Your task to perform on an android device: make emails show in primary in the gmail app Image 0: 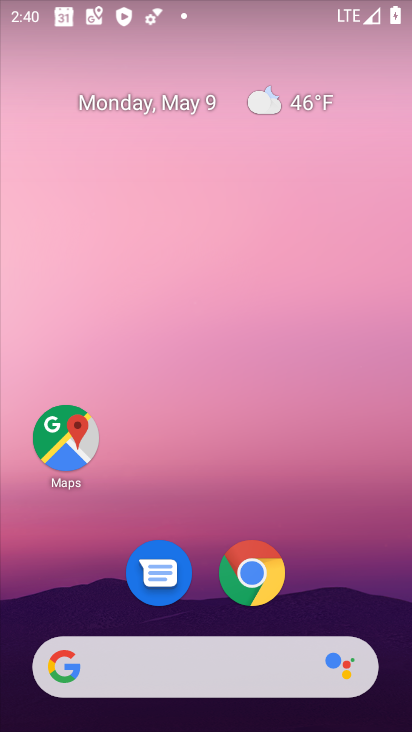
Step 0: drag from (205, 590) to (238, 111)
Your task to perform on an android device: make emails show in primary in the gmail app Image 1: 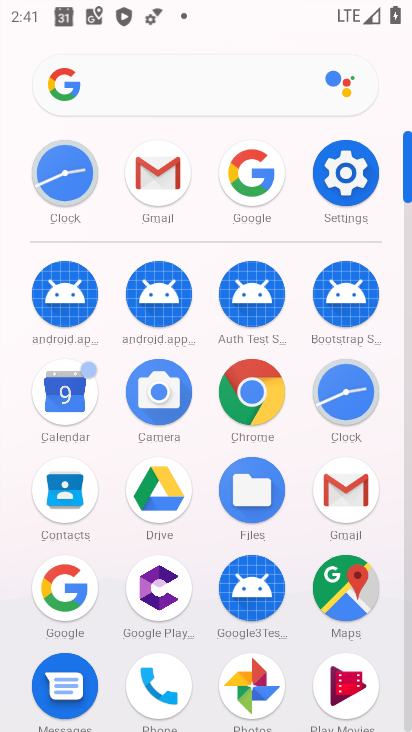
Step 1: click (143, 169)
Your task to perform on an android device: make emails show in primary in the gmail app Image 2: 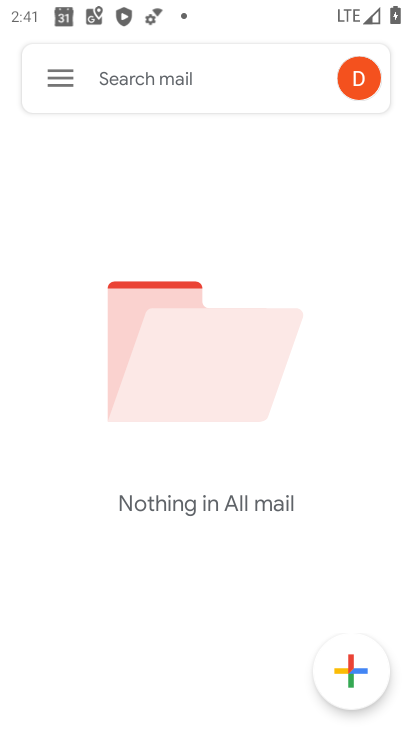
Step 2: click (50, 78)
Your task to perform on an android device: make emails show in primary in the gmail app Image 3: 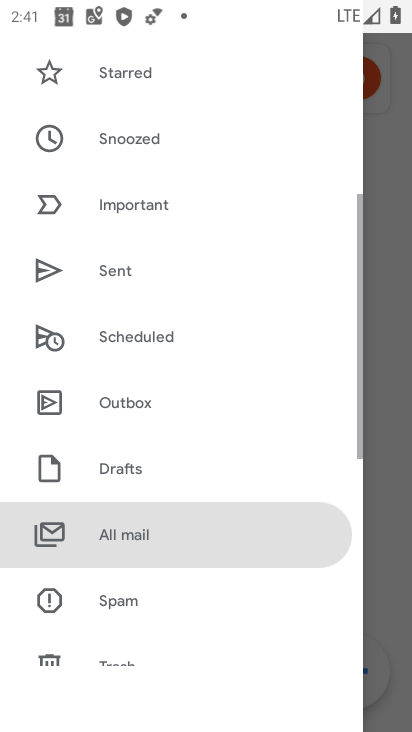
Step 3: drag from (177, 566) to (248, 167)
Your task to perform on an android device: make emails show in primary in the gmail app Image 4: 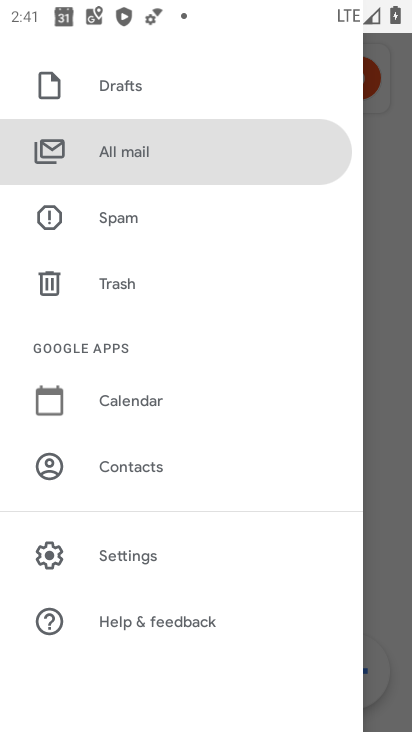
Step 4: click (106, 558)
Your task to perform on an android device: make emails show in primary in the gmail app Image 5: 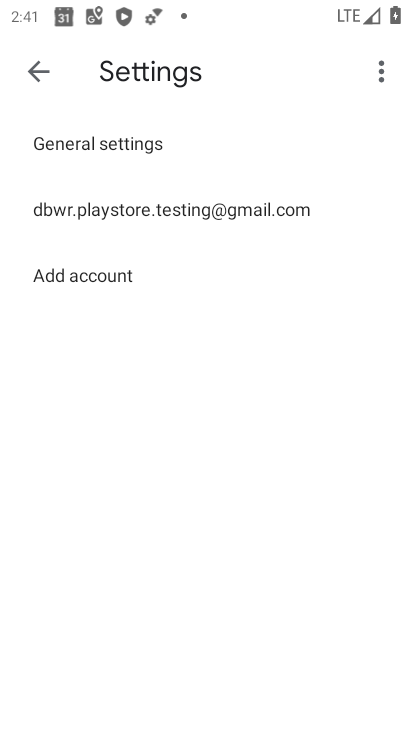
Step 5: click (138, 205)
Your task to perform on an android device: make emails show in primary in the gmail app Image 6: 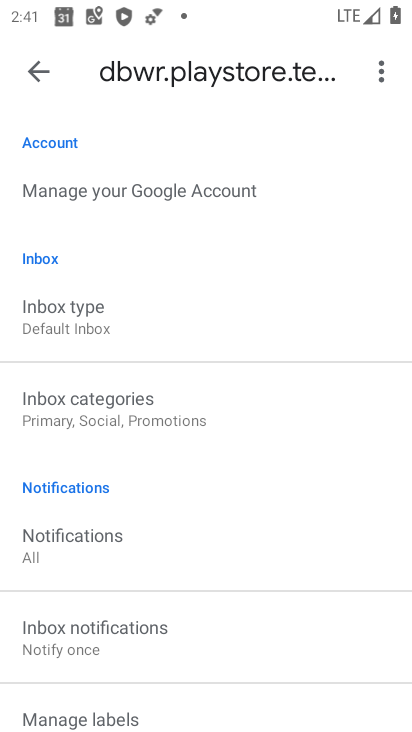
Step 6: click (74, 314)
Your task to perform on an android device: make emails show in primary in the gmail app Image 7: 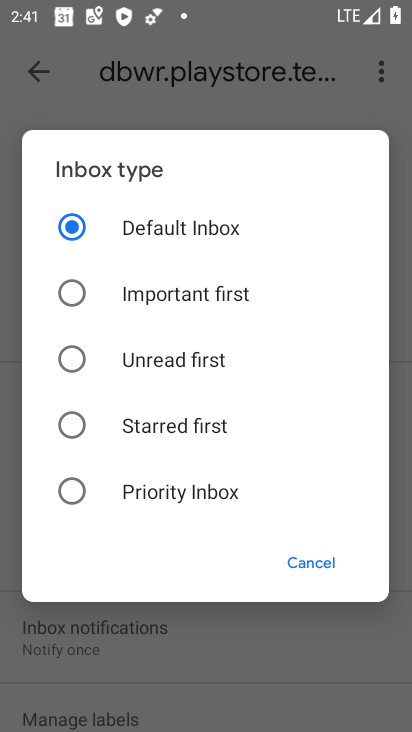
Step 7: click (303, 552)
Your task to perform on an android device: make emails show in primary in the gmail app Image 8: 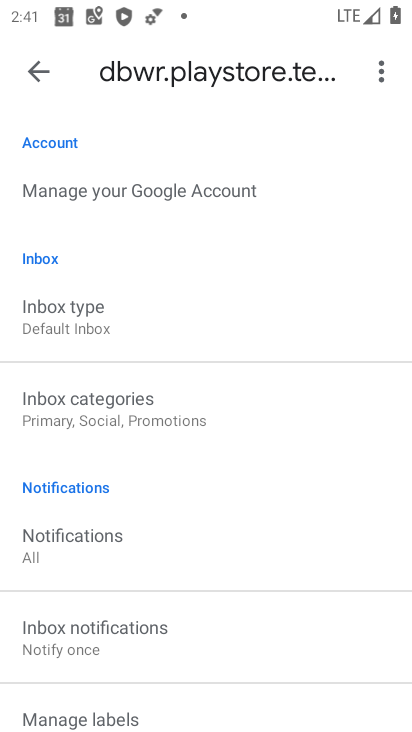
Step 8: click (79, 411)
Your task to perform on an android device: make emails show in primary in the gmail app Image 9: 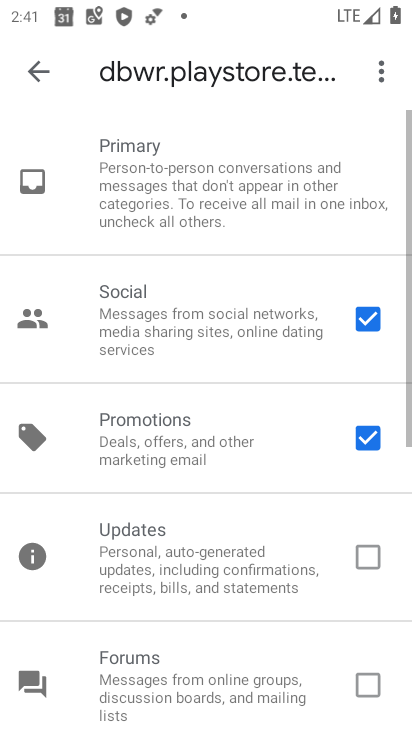
Step 9: click (366, 444)
Your task to perform on an android device: make emails show in primary in the gmail app Image 10: 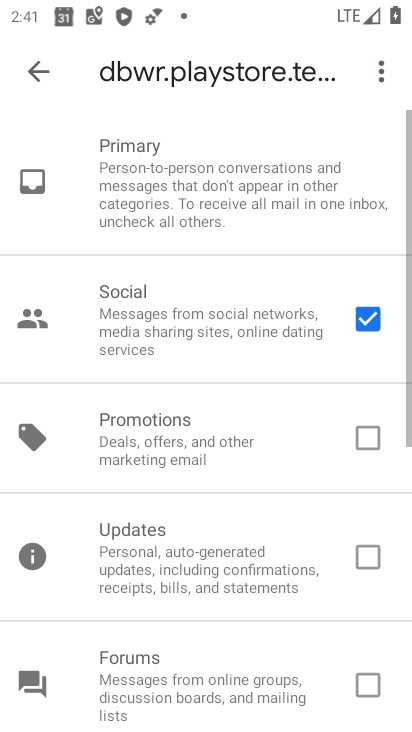
Step 10: click (353, 326)
Your task to perform on an android device: make emails show in primary in the gmail app Image 11: 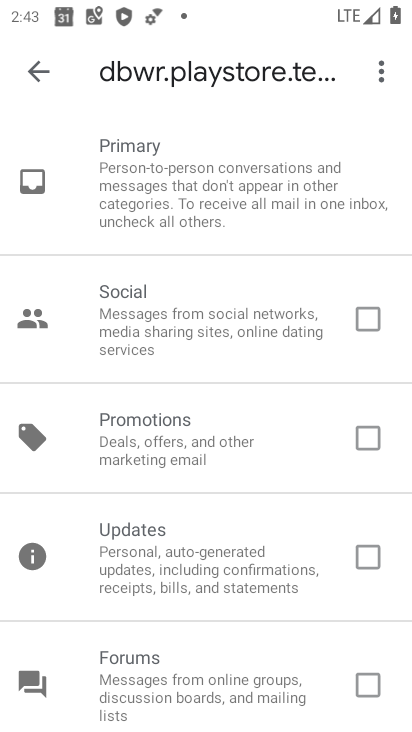
Step 11: task complete